Your task to perform on an android device: Search for "razer deathadder" on ebay, select the first entry, and add it to the cart. Image 0: 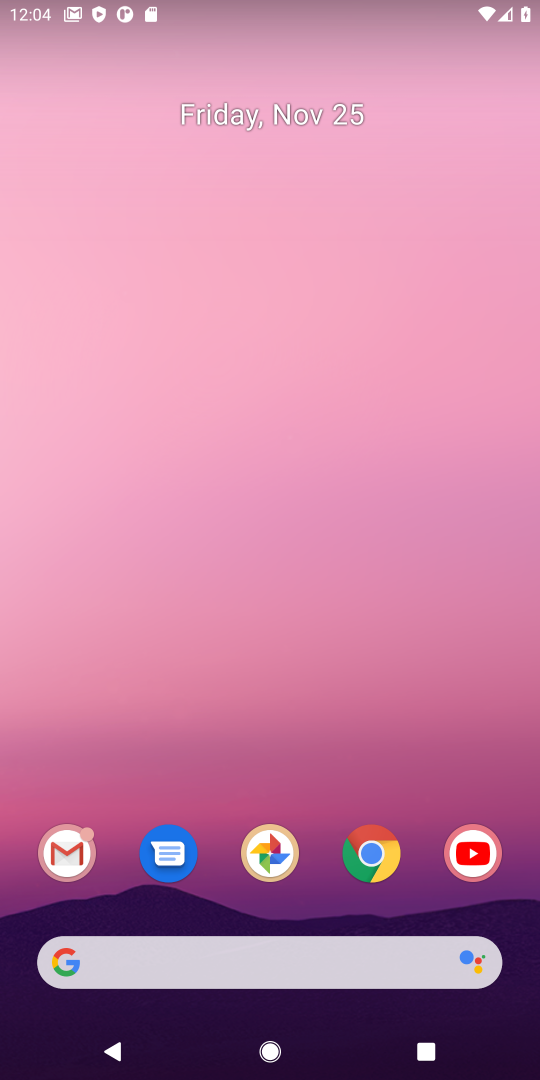
Step 0: type "ebay"
Your task to perform on an android device: Search for "razer deathadder" on ebay, select the first entry, and add it to the cart. Image 1: 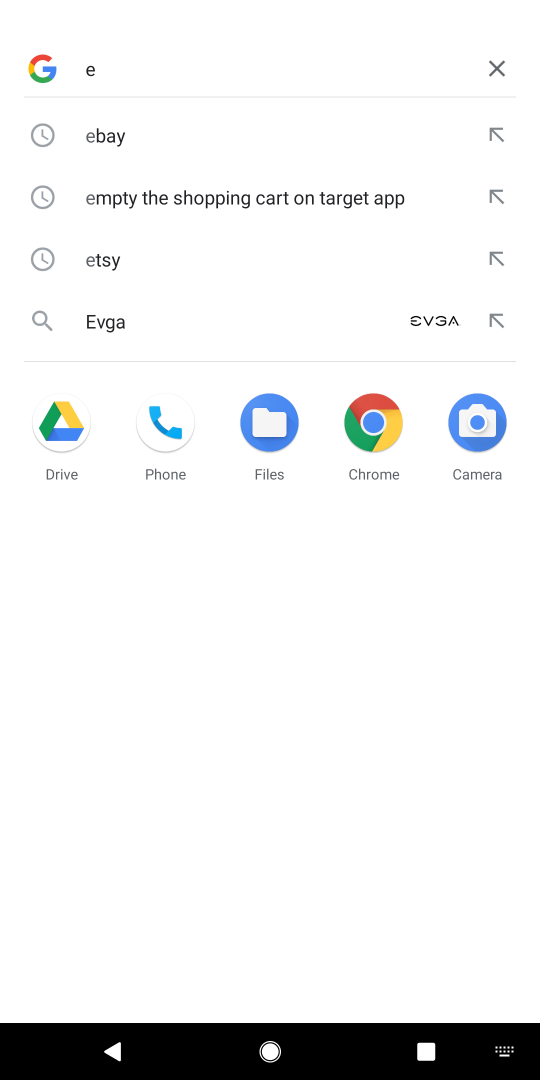
Step 1: click (101, 148)
Your task to perform on an android device: Search for "razer deathadder" on ebay, select the first entry, and add it to the cart. Image 2: 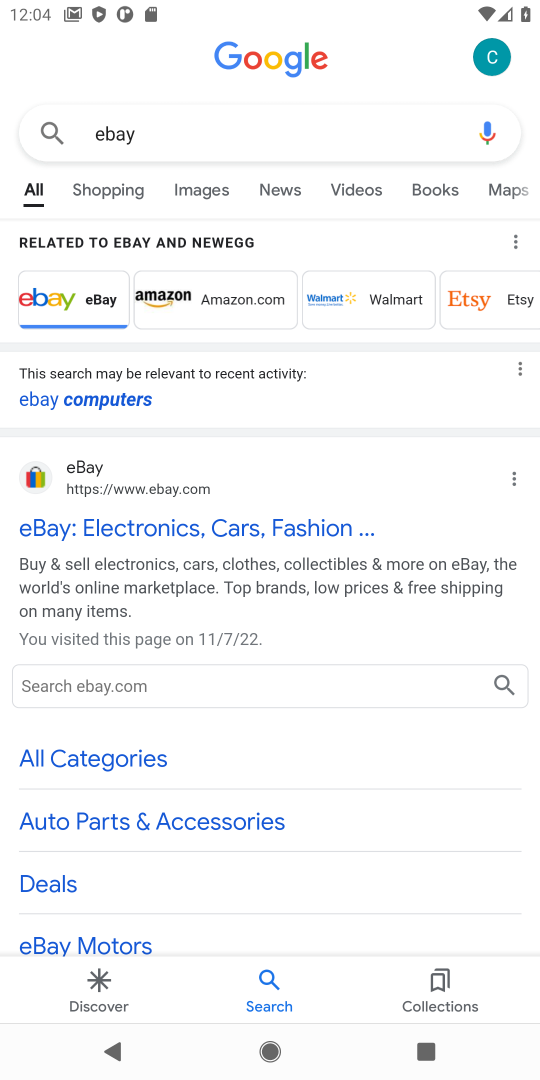
Step 2: click (143, 476)
Your task to perform on an android device: Search for "razer deathadder" on ebay, select the first entry, and add it to the cart. Image 3: 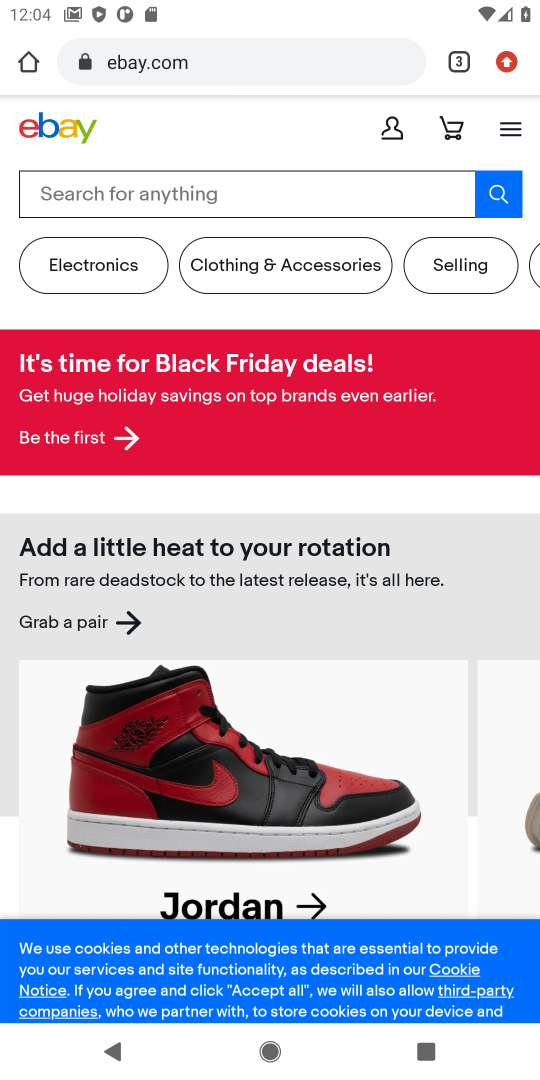
Step 3: click (210, 180)
Your task to perform on an android device: Search for "razer deathadder" on ebay, select the first entry, and add it to the cart. Image 4: 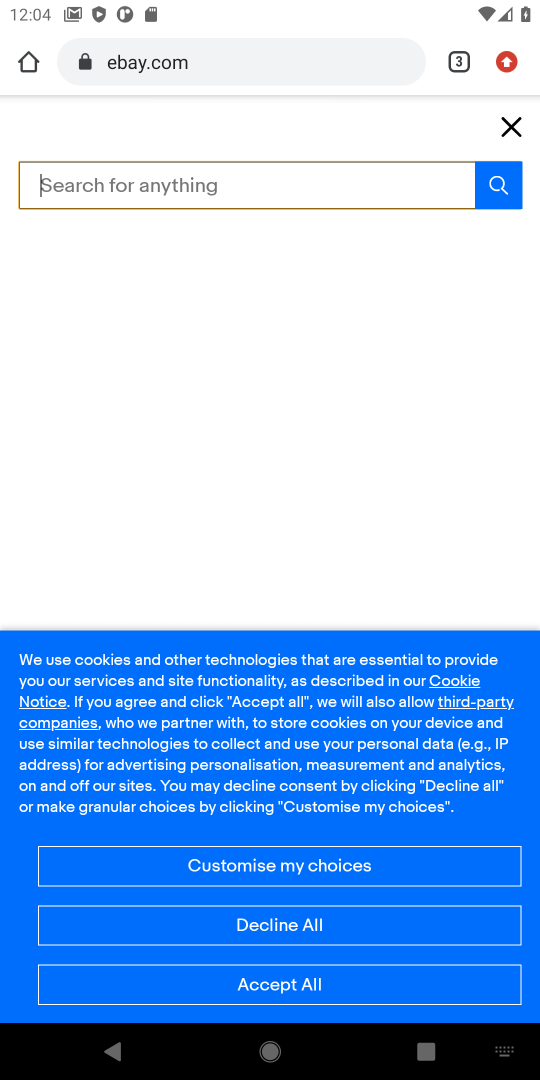
Step 4: type "razer deaathadder"
Your task to perform on an android device: Search for "razer deathadder" on ebay, select the first entry, and add it to the cart. Image 5: 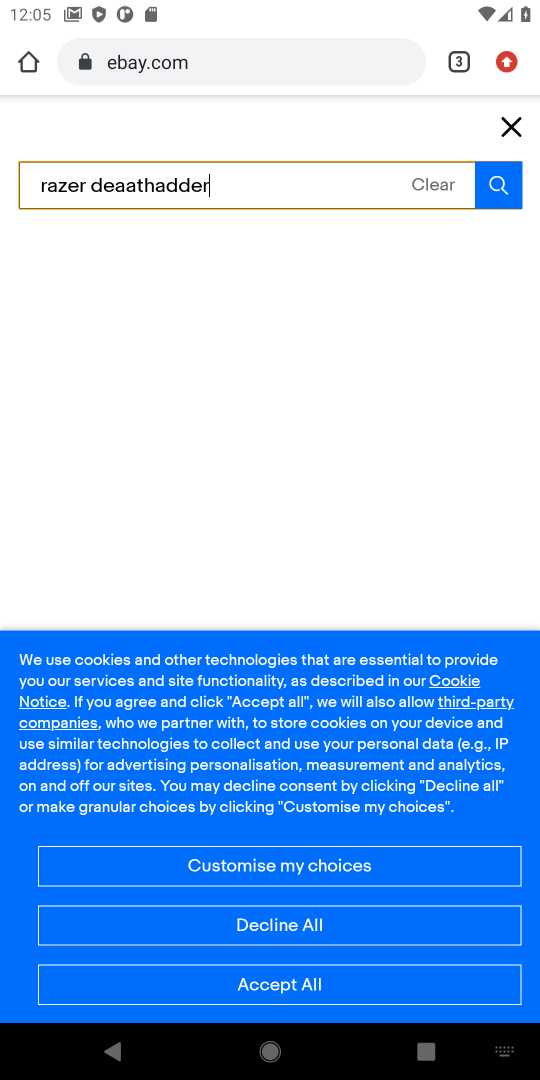
Step 5: click (498, 185)
Your task to perform on an android device: Search for "razer deathadder" on ebay, select the first entry, and add it to the cart. Image 6: 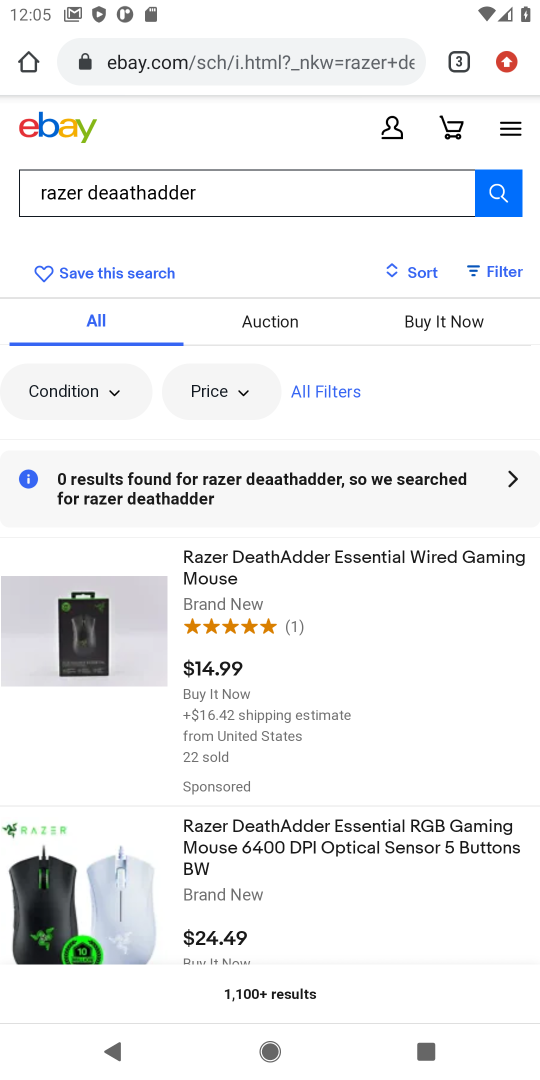
Step 6: click (319, 635)
Your task to perform on an android device: Search for "razer deathadder" on ebay, select the first entry, and add it to the cart. Image 7: 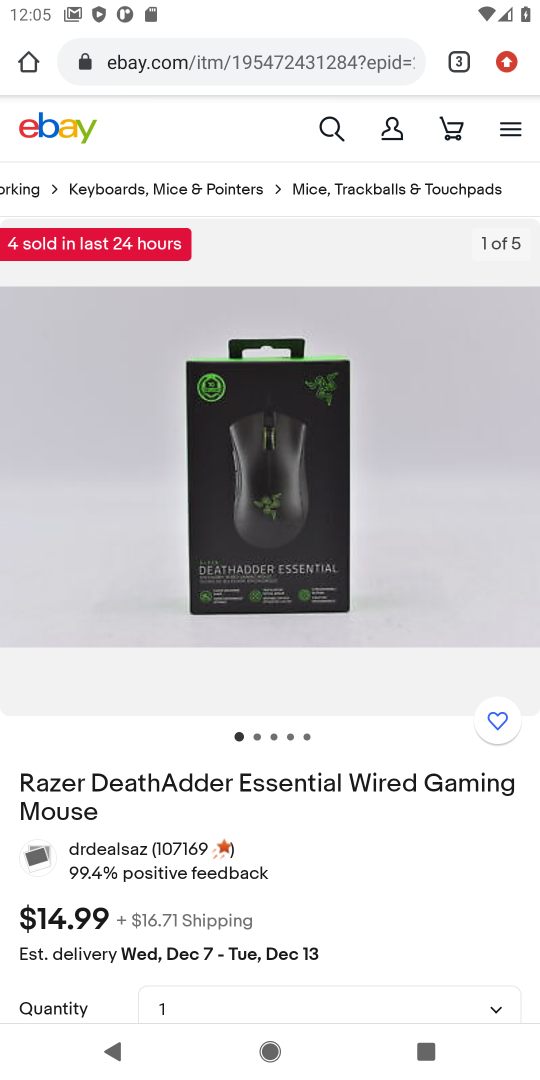
Step 7: drag from (317, 902) to (193, 219)
Your task to perform on an android device: Search for "razer deathadder" on ebay, select the first entry, and add it to the cart. Image 8: 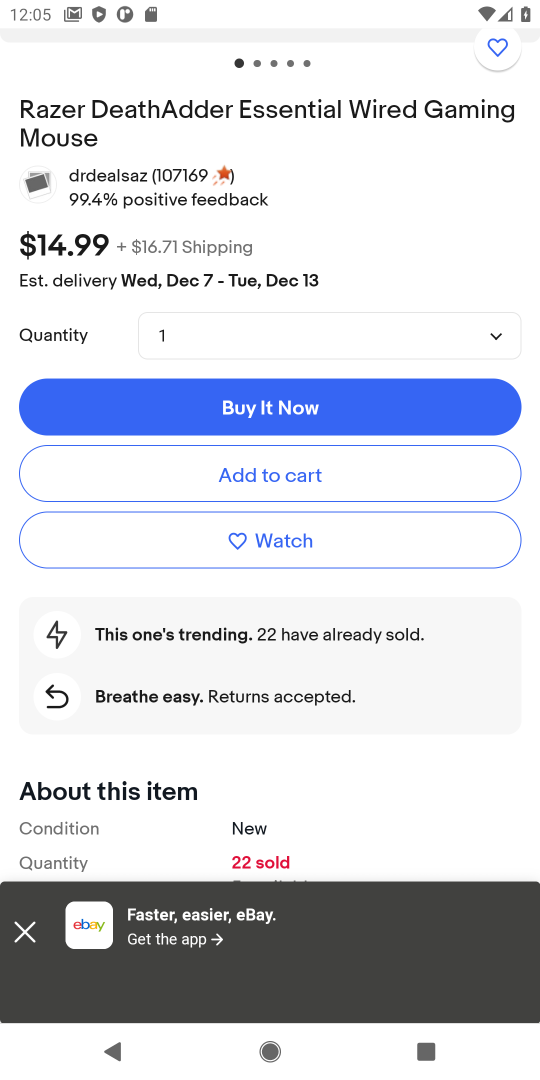
Step 8: click (328, 474)
Your task to perform on an android device: Search for "razer deathadder" on ebay, select the first entry, and add it to the cart. Image 9: 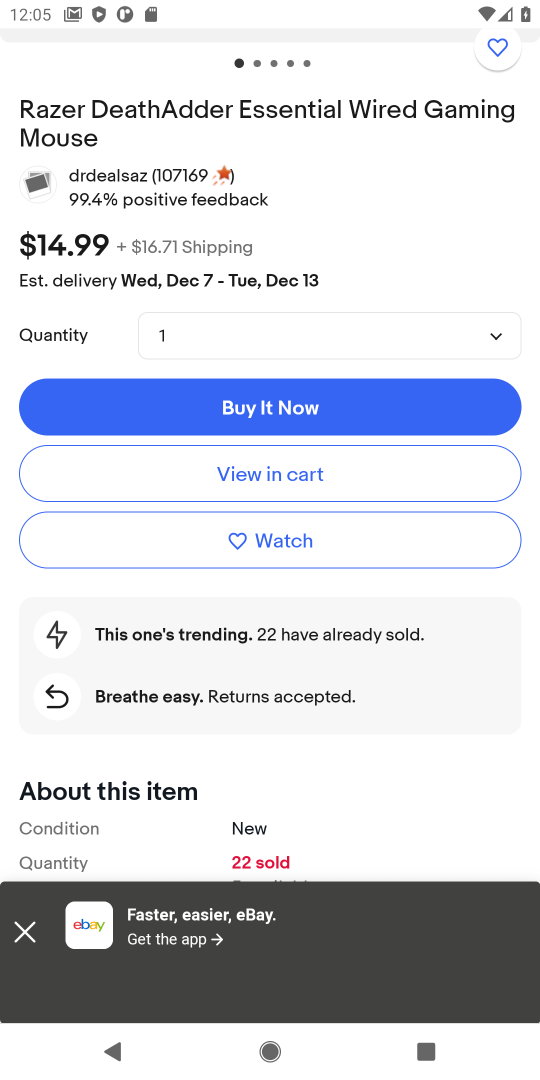
Step 9: task complete